Your task to perform on an android device: Clear the shopping cart on costco.com. Add "bose quietcomfort 35" to the cart on costco.com, then select checkout. Image 0: 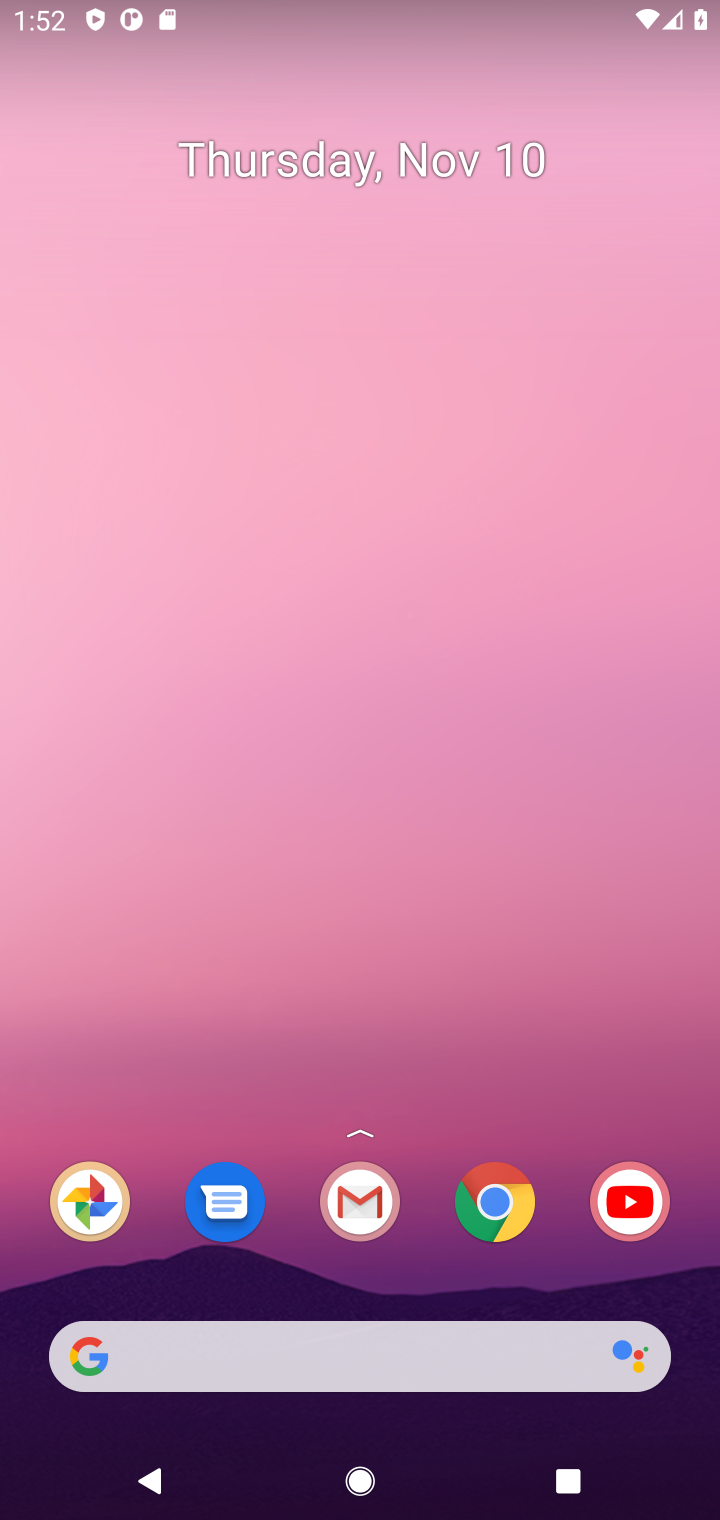
Step 0: click (486, 1196)
Your task to perform on an android device: Clear the shopping cart on costco.com. Add "bose quietcomfort 35" to the cart on costco.com, then select checkout. Image 1: 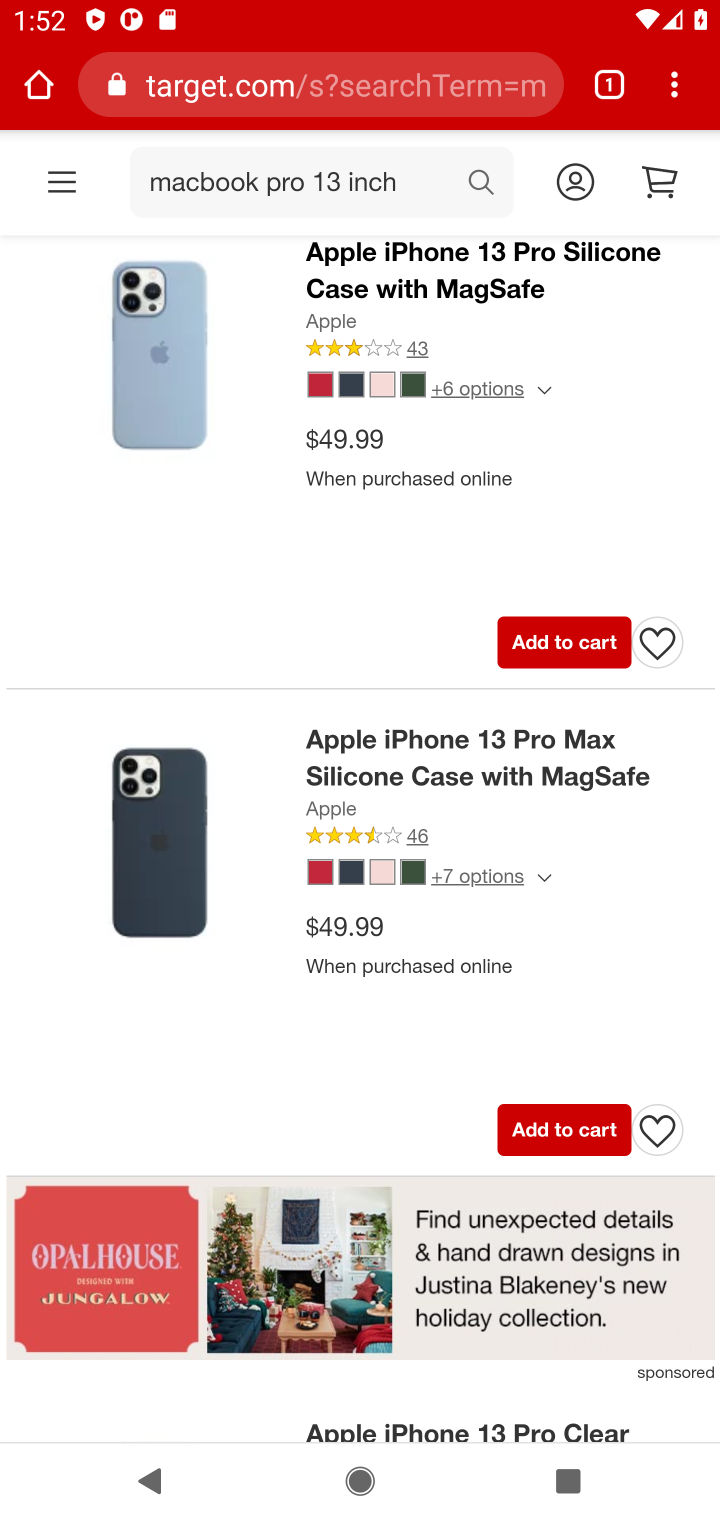
Step 1: click (476, 81)
Your task to perform on an android device: Clear the shopping cart on costco.com. Add "bose quietcomfort 35" to the cart on costco.com, then select checkout. Image 2: 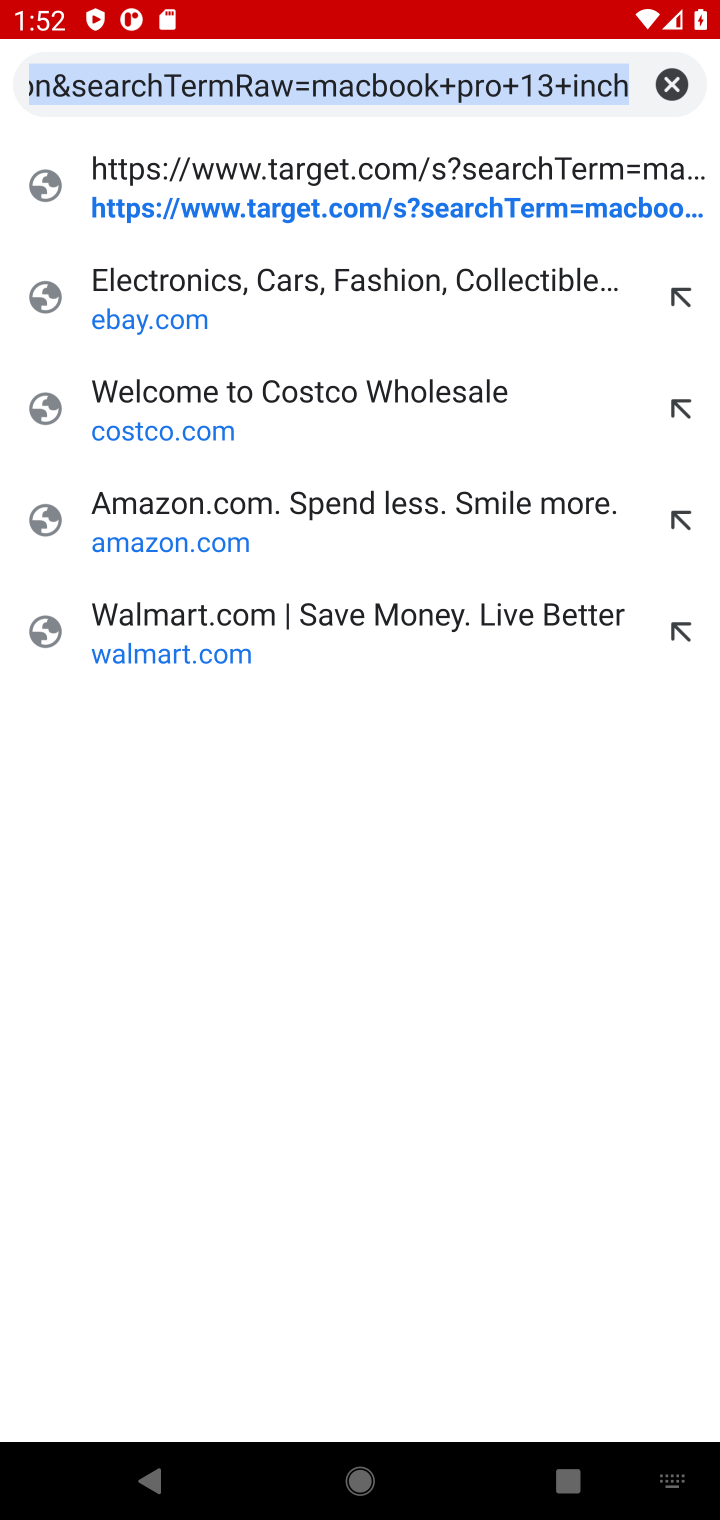
Step 2: click (658, 92)
Your task to perform on an android device: Clear the shopping cart on costco.com. Add "bose quietcomfort 35" to the cart on costco.com, then select checkout. Image 3: 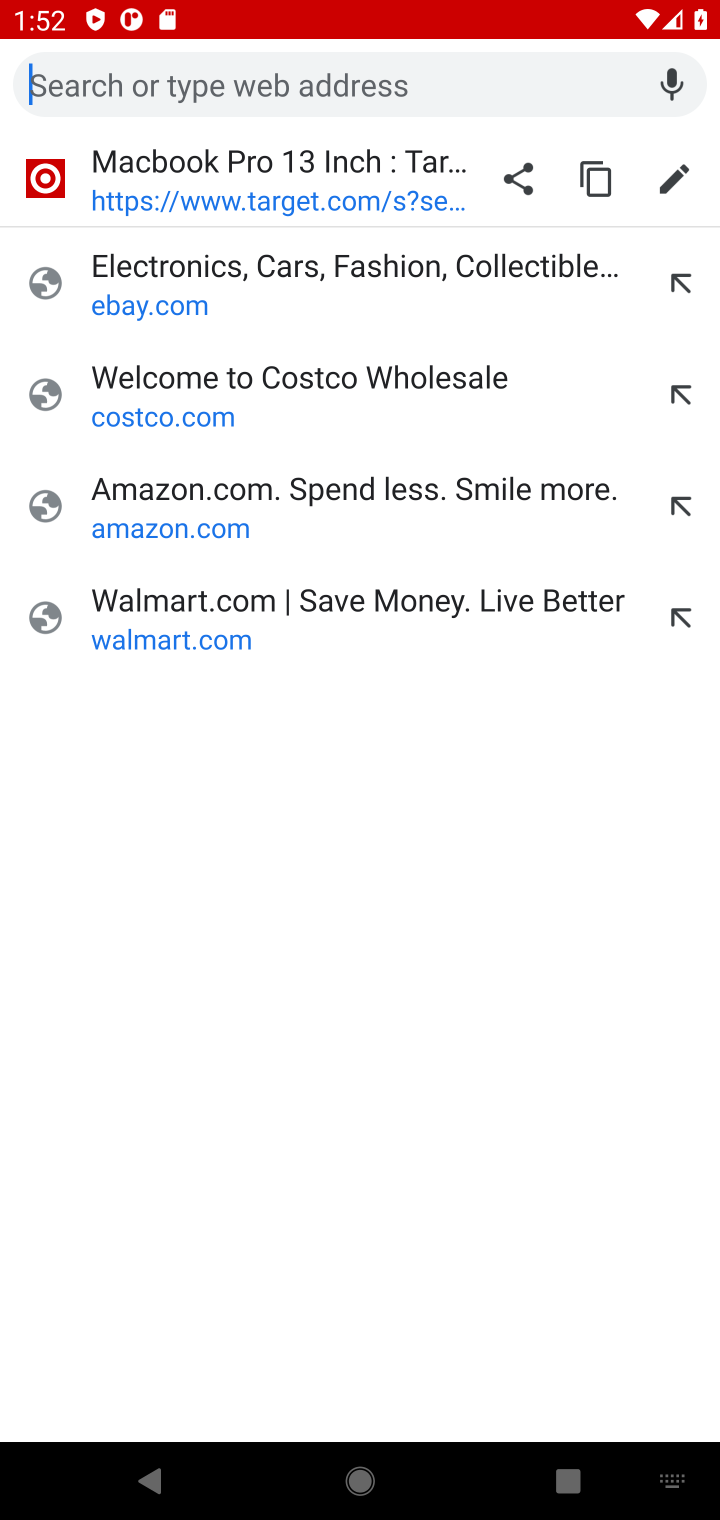
Step 3: type "costco.com"
Your task to perform on an android device: Clear the shopping cart on costco.com. Add "bose quietcomfort 35" to the cart on costco.com, then select checkout. Image 4: 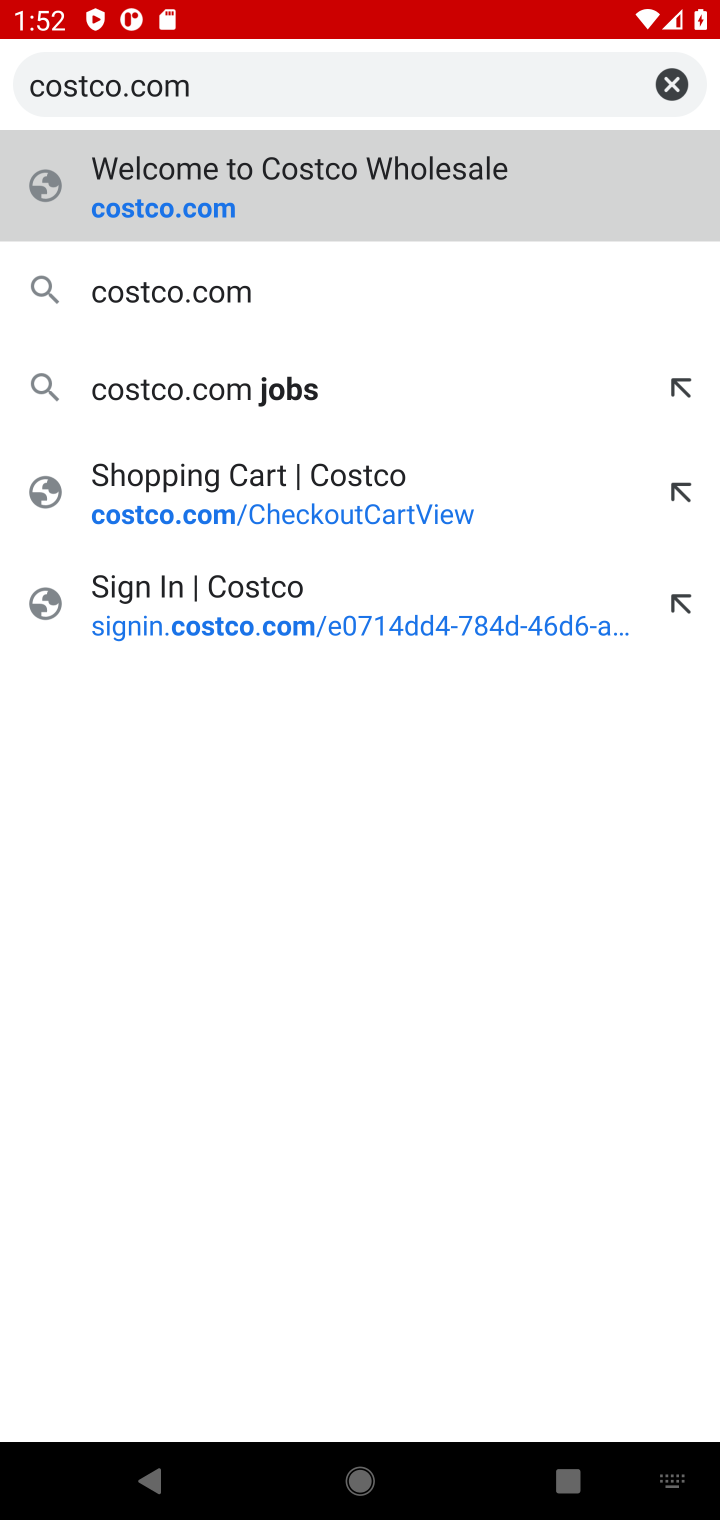
Step 4: click (198, 288)
Your task to perform on an android device: Clear the shopping cart on costco.com. Add "bose quietcomfort 35" to the cart on costco.com, then select checkout. Image 5: 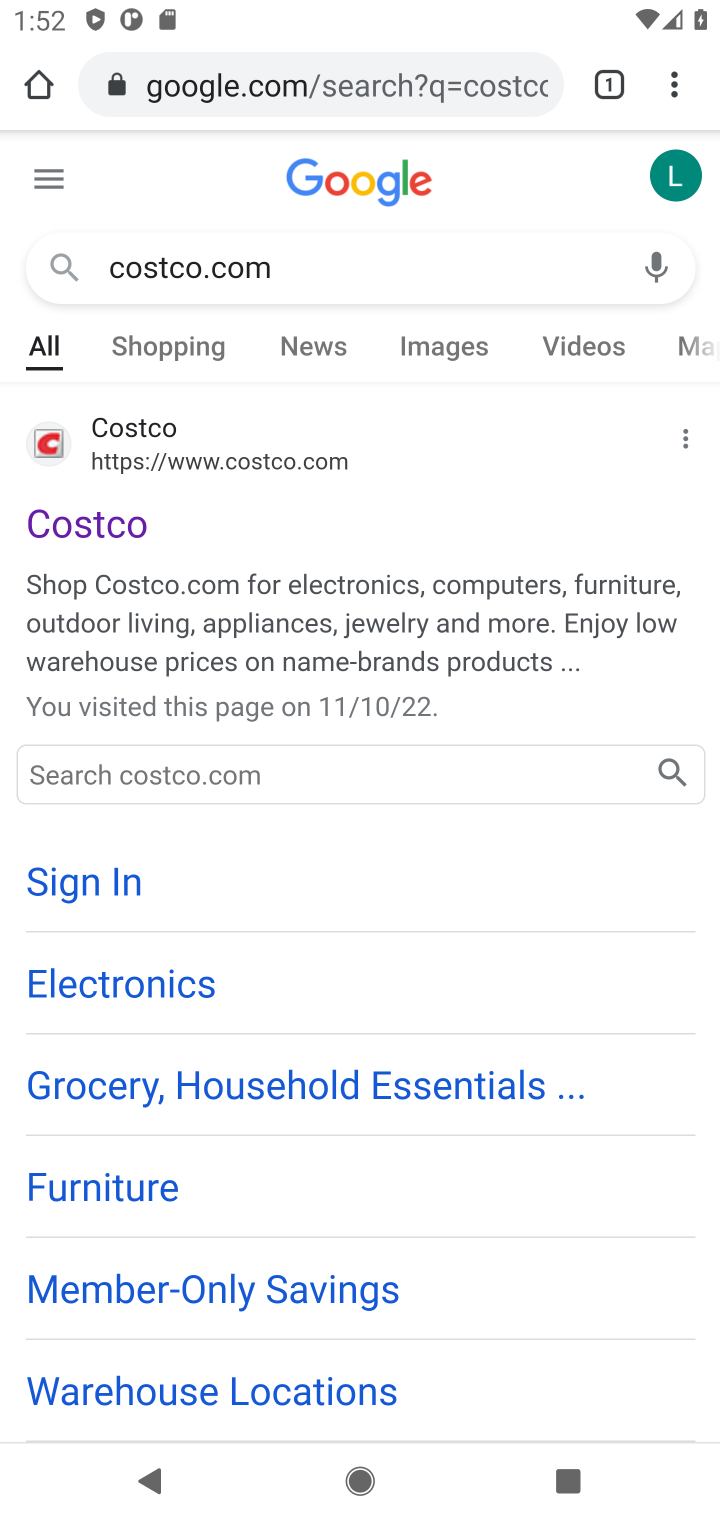
Step 5: click (220, 445)
Your task to perform on an android device: Clear the shopping cart on costco.com. Add "bose quietcomfort 35" to the cart on costco.com, then select checkout. Image 6: 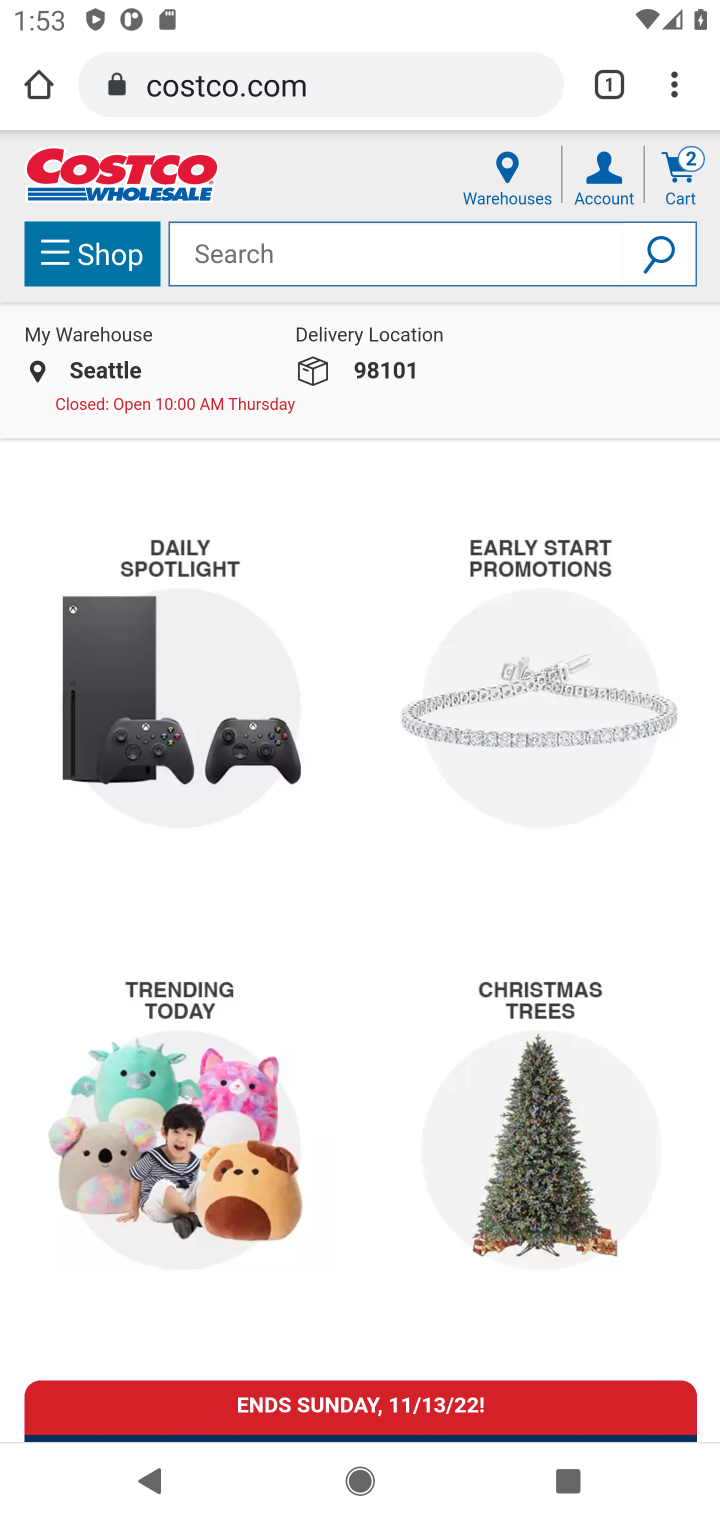
Step 6: click (670, 189)
Your task to perform on an android device: Clear the shopping cart on costco.com. Add "bose quietcomfort 35" to the cart on costco.com, then select checkout. Image 7: 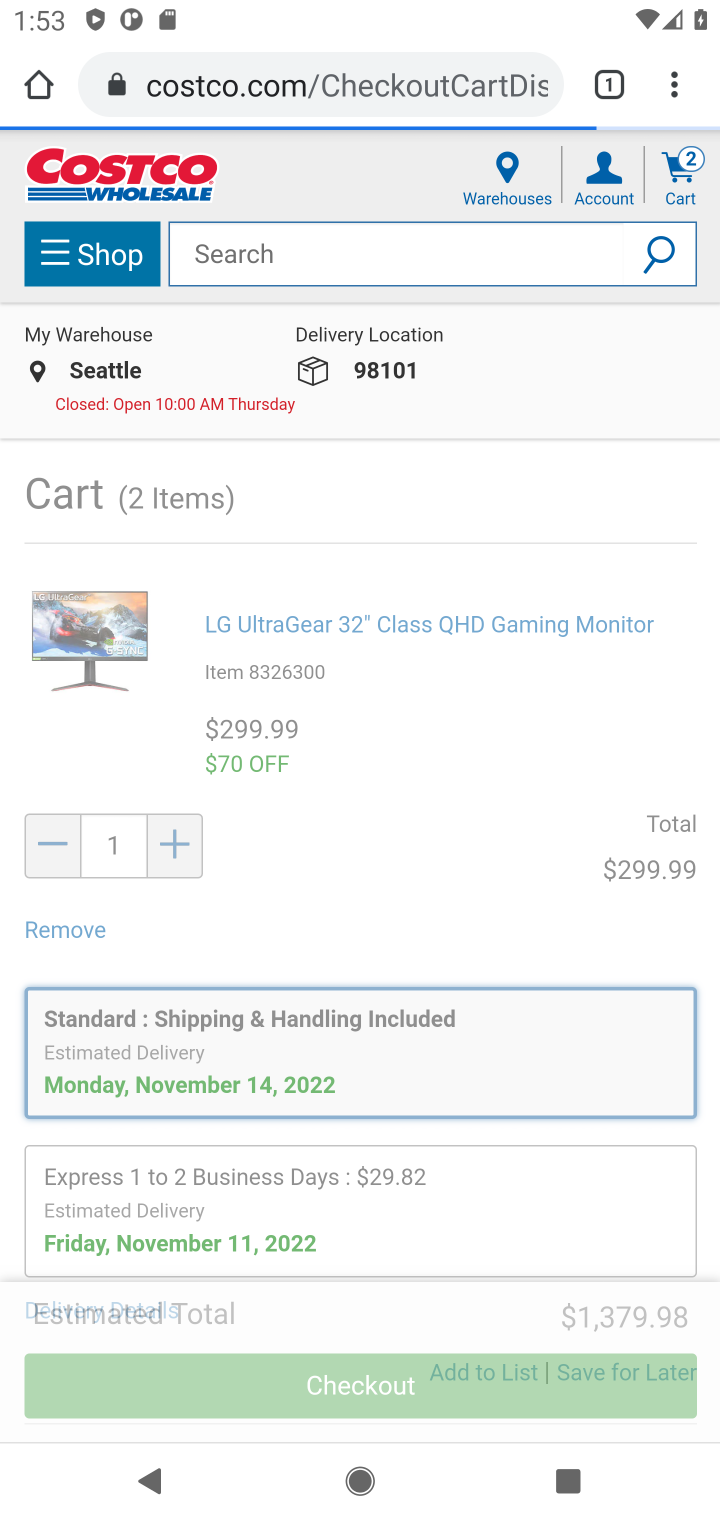
Step 7: click (49, 925)
Your task to perform on an android device: Clear the shopping cart on costco.com. Add "bose quietcomfort 35" to the cart on costco.com, then select checkout. Image 8: 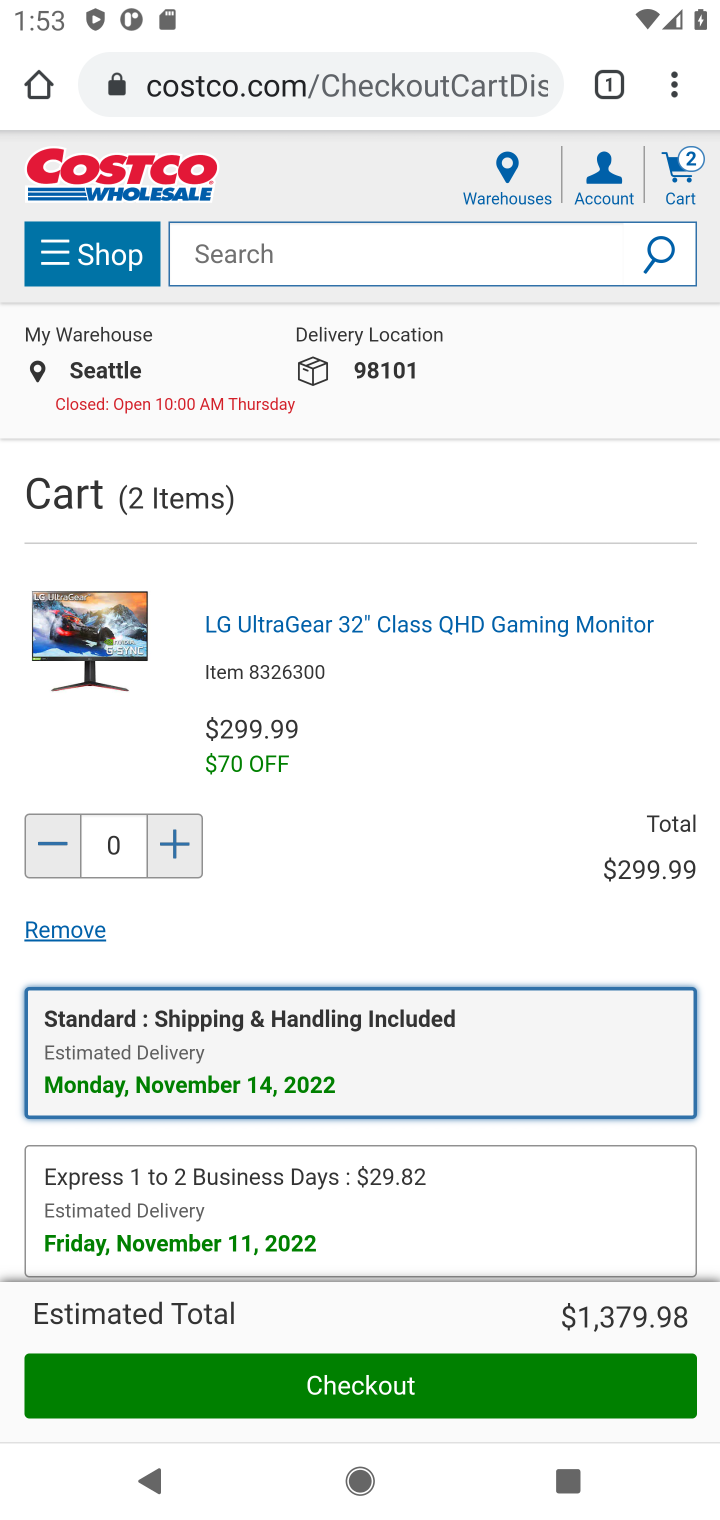
Step 8: drag from (415, 840) to (545, 411)
Your task to perform on an android device: Clear the shopping cart on costco.com. Add "bose quietcomfort 35" to the cart on costco.com, then select checkout. Image 9: 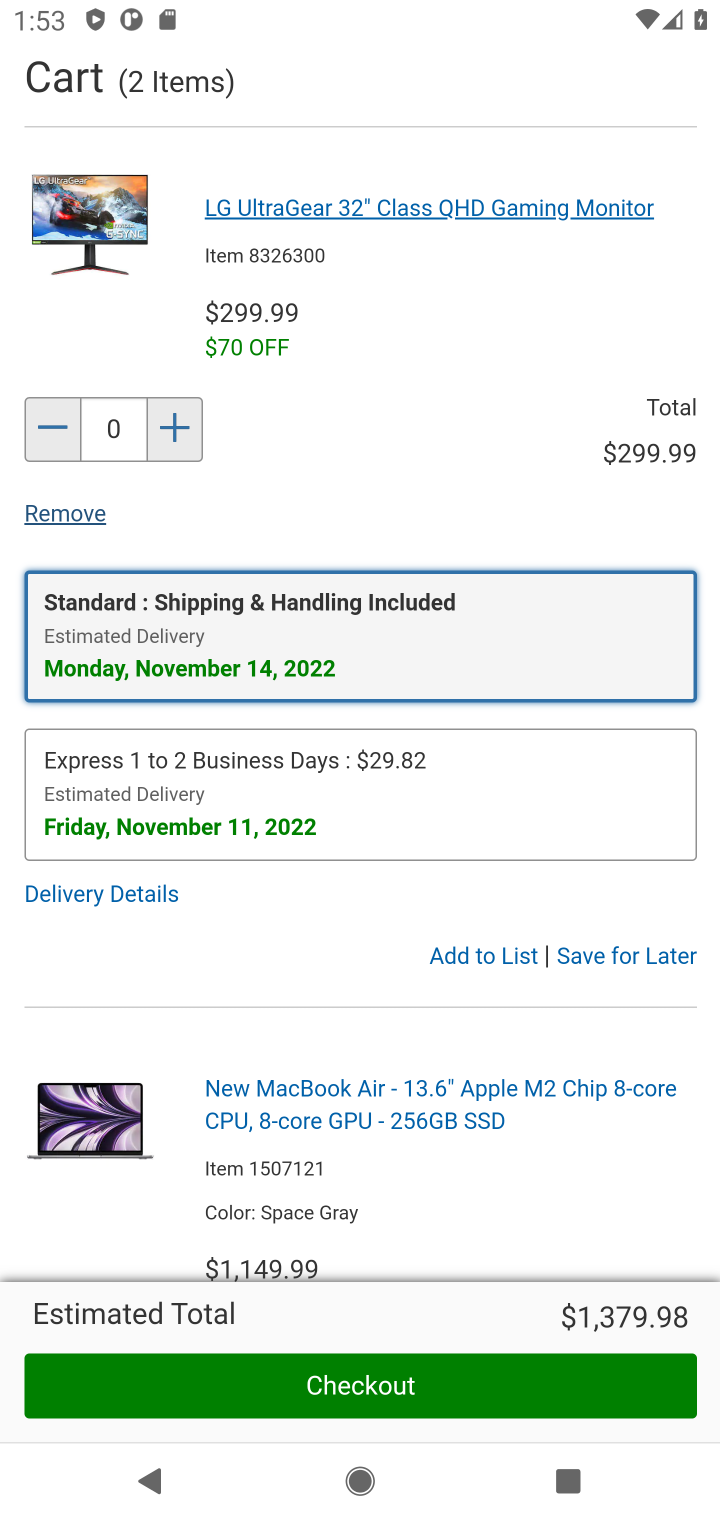
Step 9: drag from (281, 1011) to (380, 767)
Your task to perform on an android device: Clear the shopping cart on costco.com. Add "bose quietcomfort 35" to the cart on costco.com, then select checkout. Image 10: 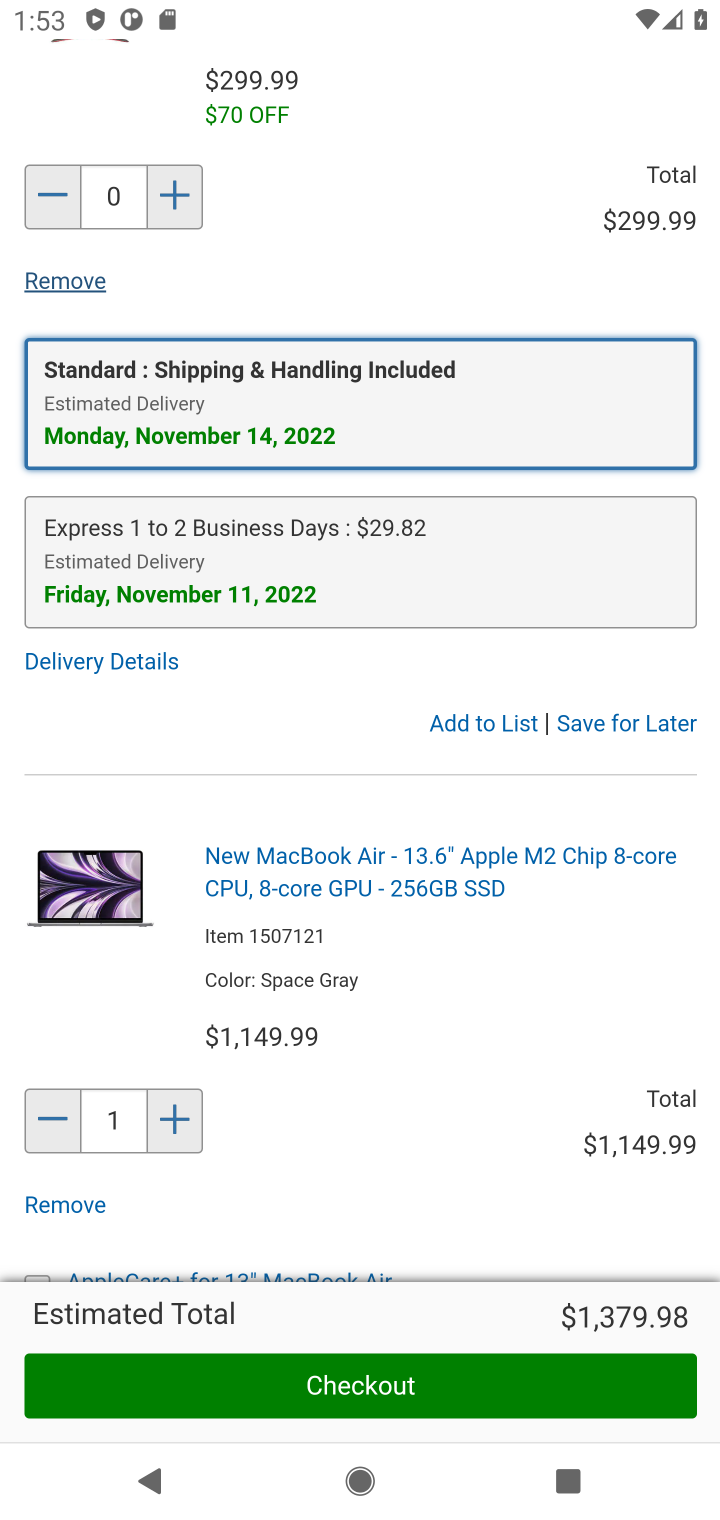
Step 10: click (31, 1130)
Your task to perform on an android device: Clear the shopping cart on costco.com. Add "bose quietcomfort 35" to the cart on costco.com, then select checkout. Image 11: 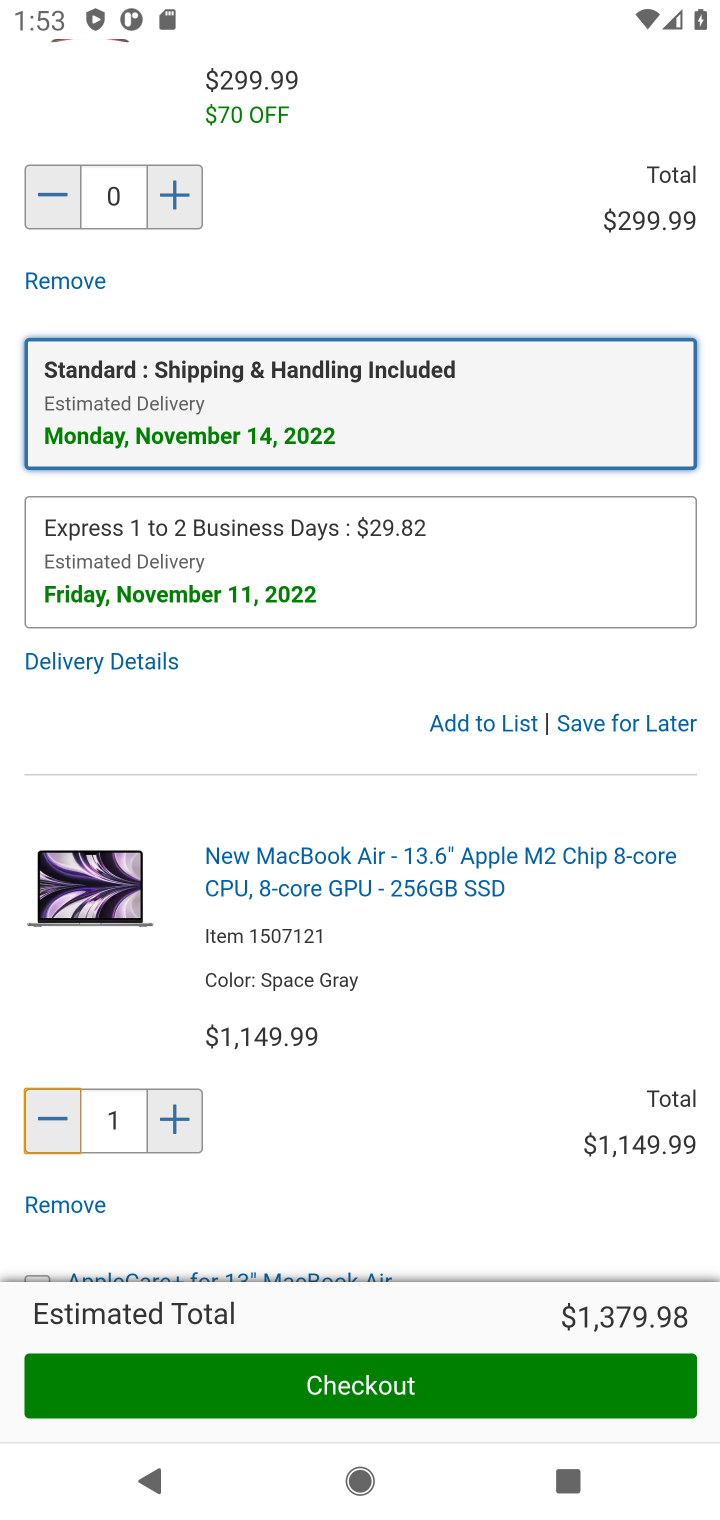
Step 11: drag from (585, 1070) to (707, 608)
Your task to perform on an android device: Clear the shopping cart on costco.com. Add "bose quietcomfort 35" to the cart on costco.com, then select checkout. Image 12: 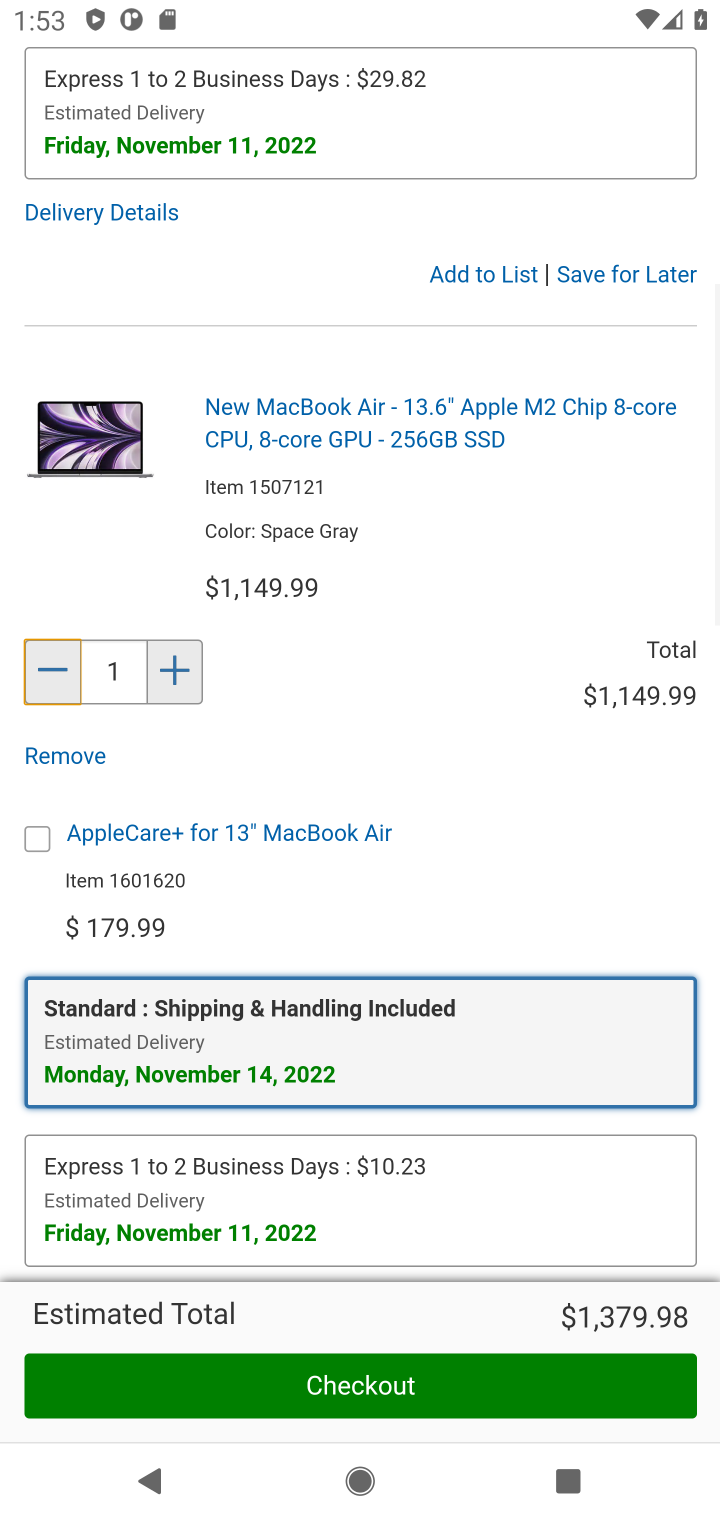
Step 12: click (62, 694)
Your task to perform on an android device: Clear the shopping cart on costco.com. Add "bose quietcomfort 35" to the cart on costco.com, then select checkout. Image 13: 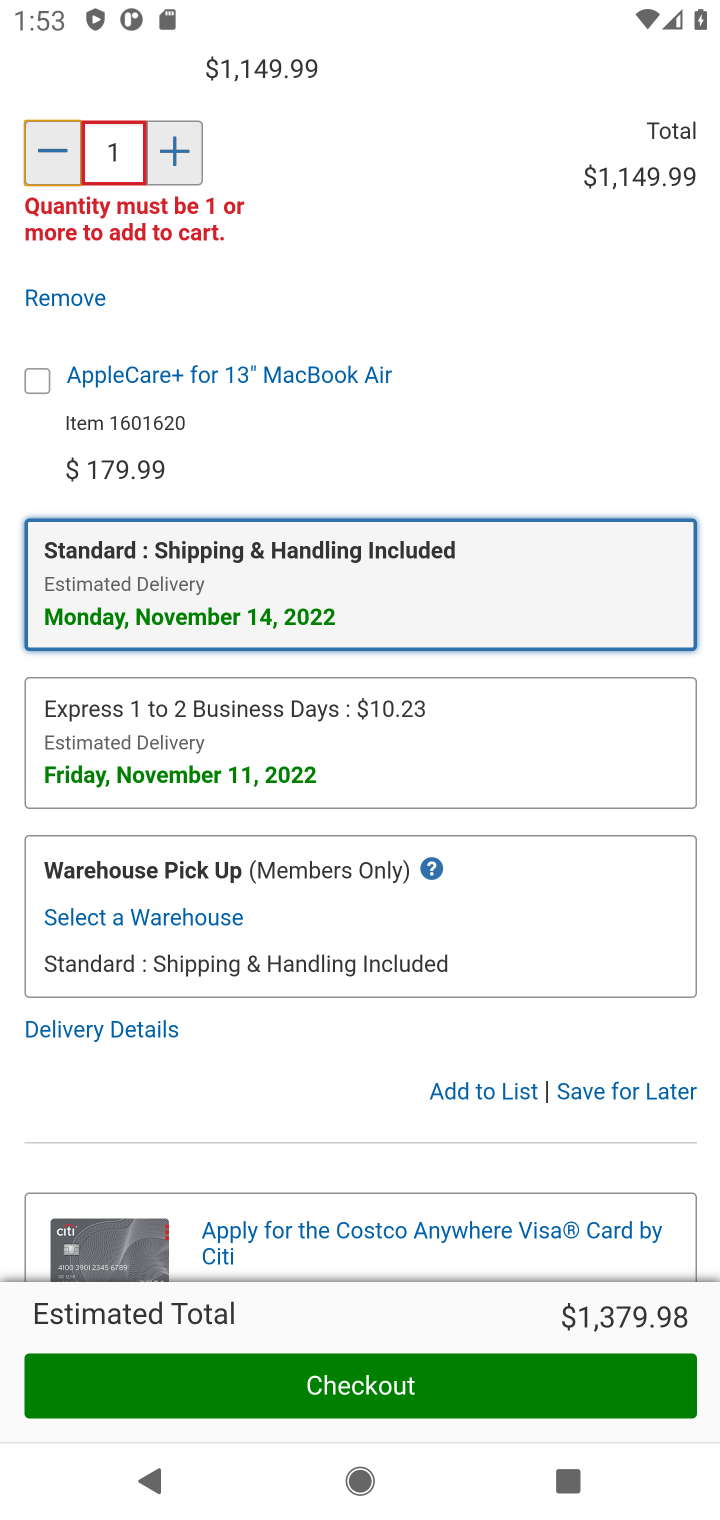
Step 13: click (57, 154)
Your task to perform on an android device: Clear the shopping cart on costco.com. Add "bose quietcomfort 35" to the cart on costco.com, then select checkout. Image 14: 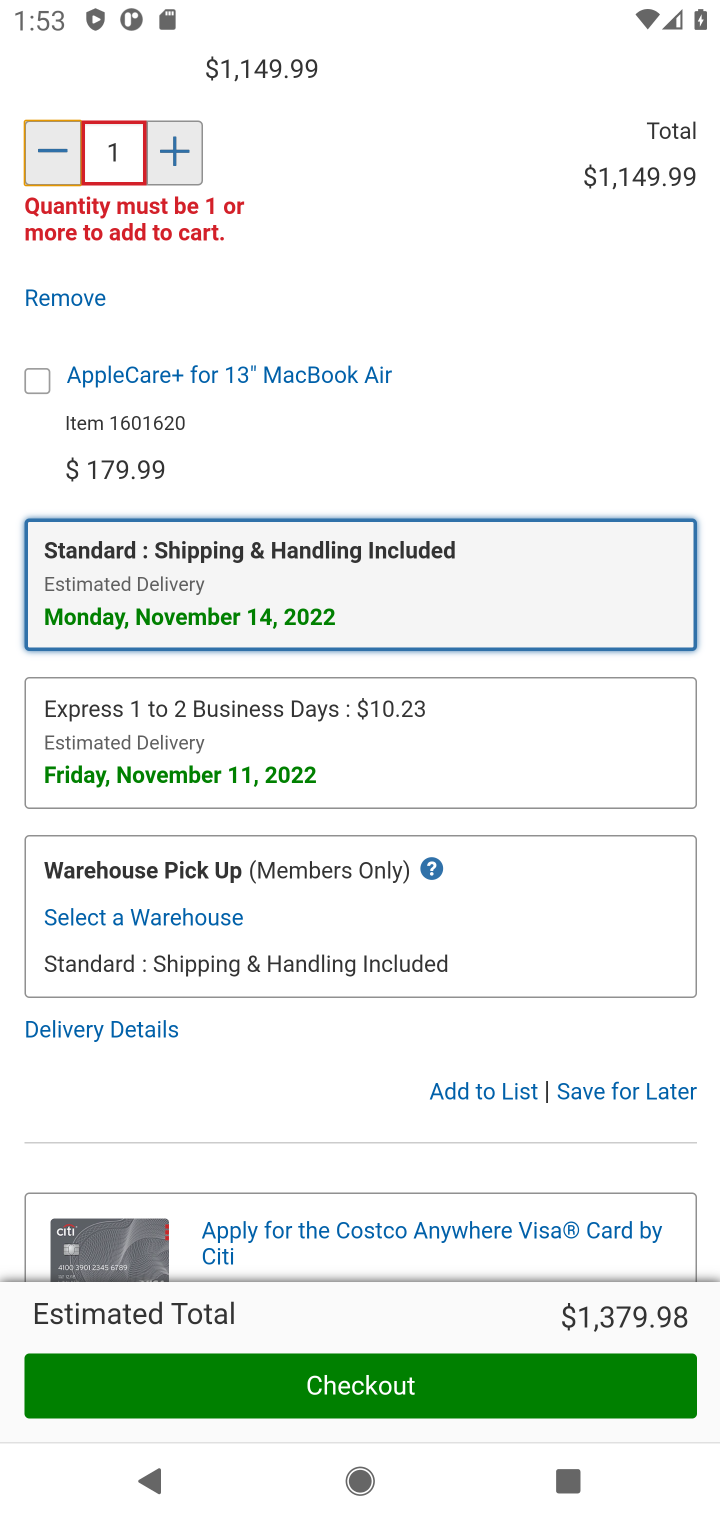
Step 14: click (62, 286)
Your task to perform on an android device: Clear the shopping cart on costco.com. Add "bose quietcomfort 35" to the cart on costco.com, then select checkout. Image 15: 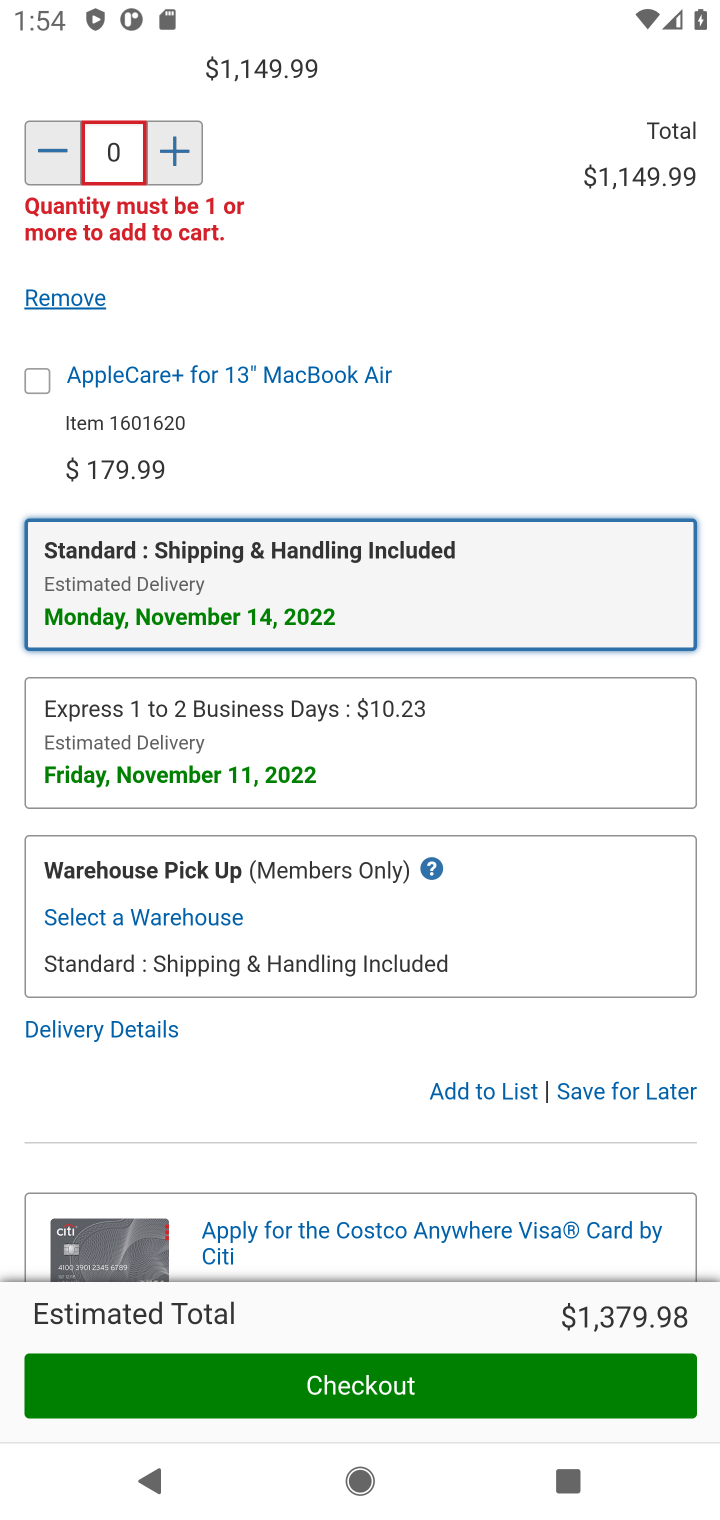
Step 15: drag from (550, 454) to (513, 1516)
Your task to perform on an android device: Clear the shopping cart on costco.com. Add "bose quietcomfort 35" to the cart on costco.com, then select checkout. Image 16: 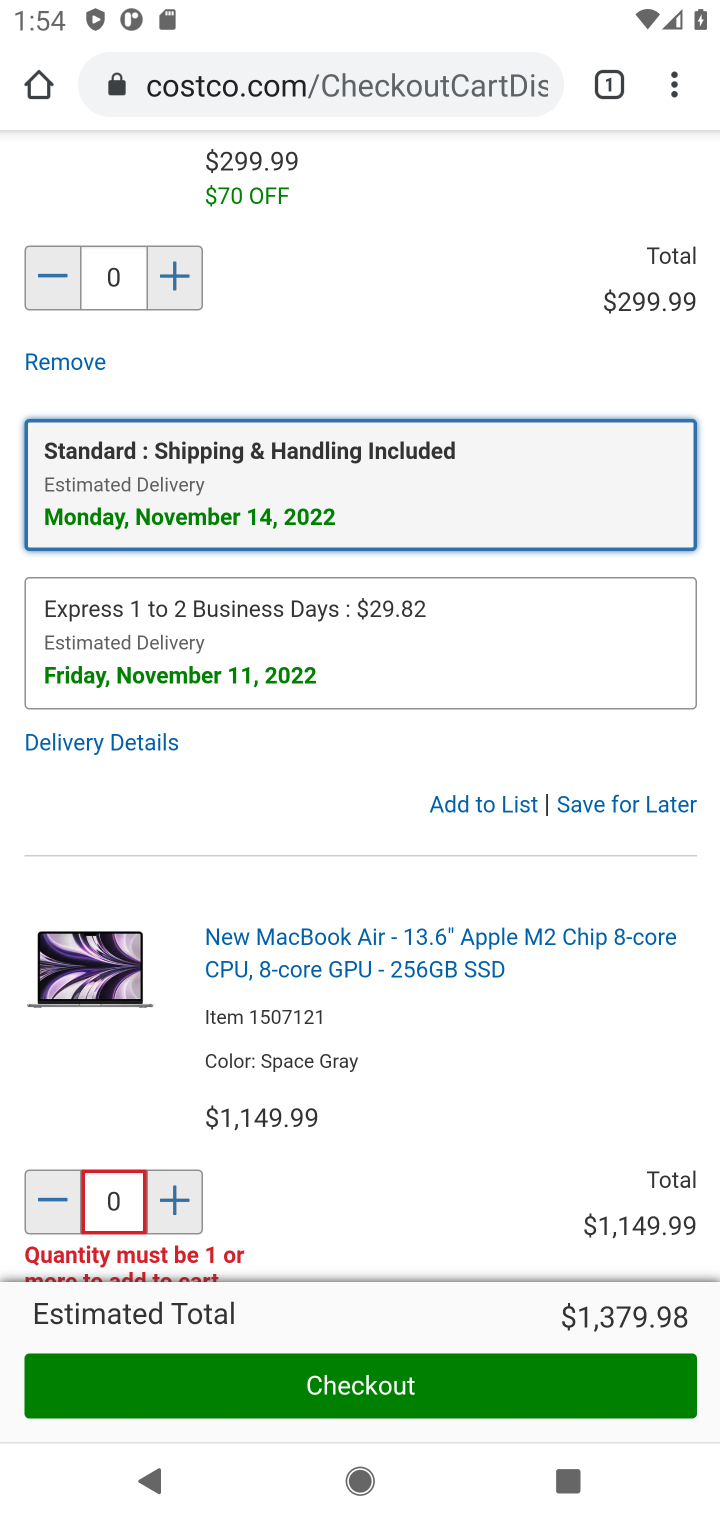
Step 16: drag from (364, 335) to (287, 1507)
Your task to perform on an android device: Clear the shopping cart on costco.com. Add "bose quietcomfort 35" to the cart on costco.com, then select checkout. Image 17: 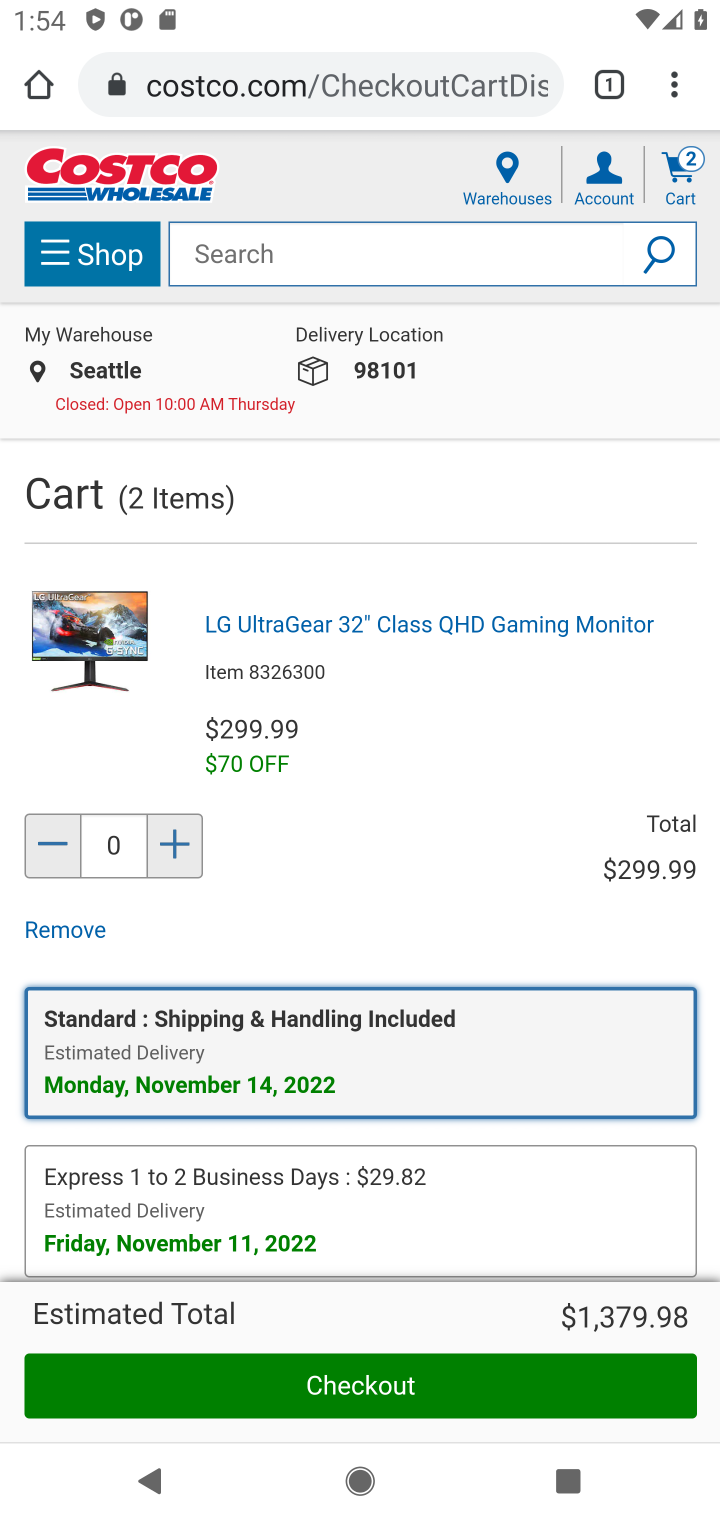
Step 17: click (641, 232)
Your task to perform on an android device: Clear the shopping cart on costco.com. Add "bose quietcomfort 35" to the cart on costco.com, then select checkout. Image 18: 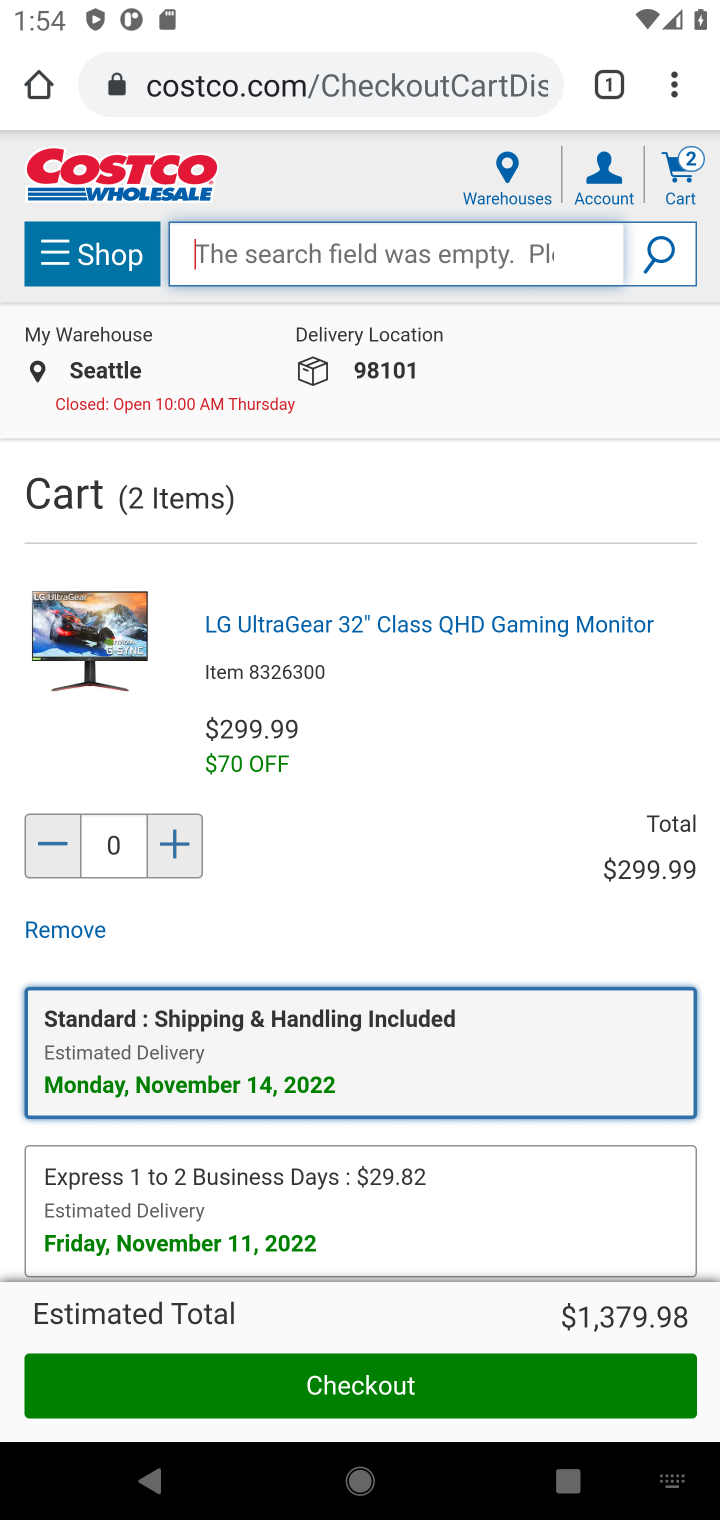
Step 18: type "bose quietcomfort 35"
Your task to perform on an android device: Clear the shopping cart on costco.com. Add "bose quietcomfort 35" to the cart on costco.com, then select checkout. Image 19: 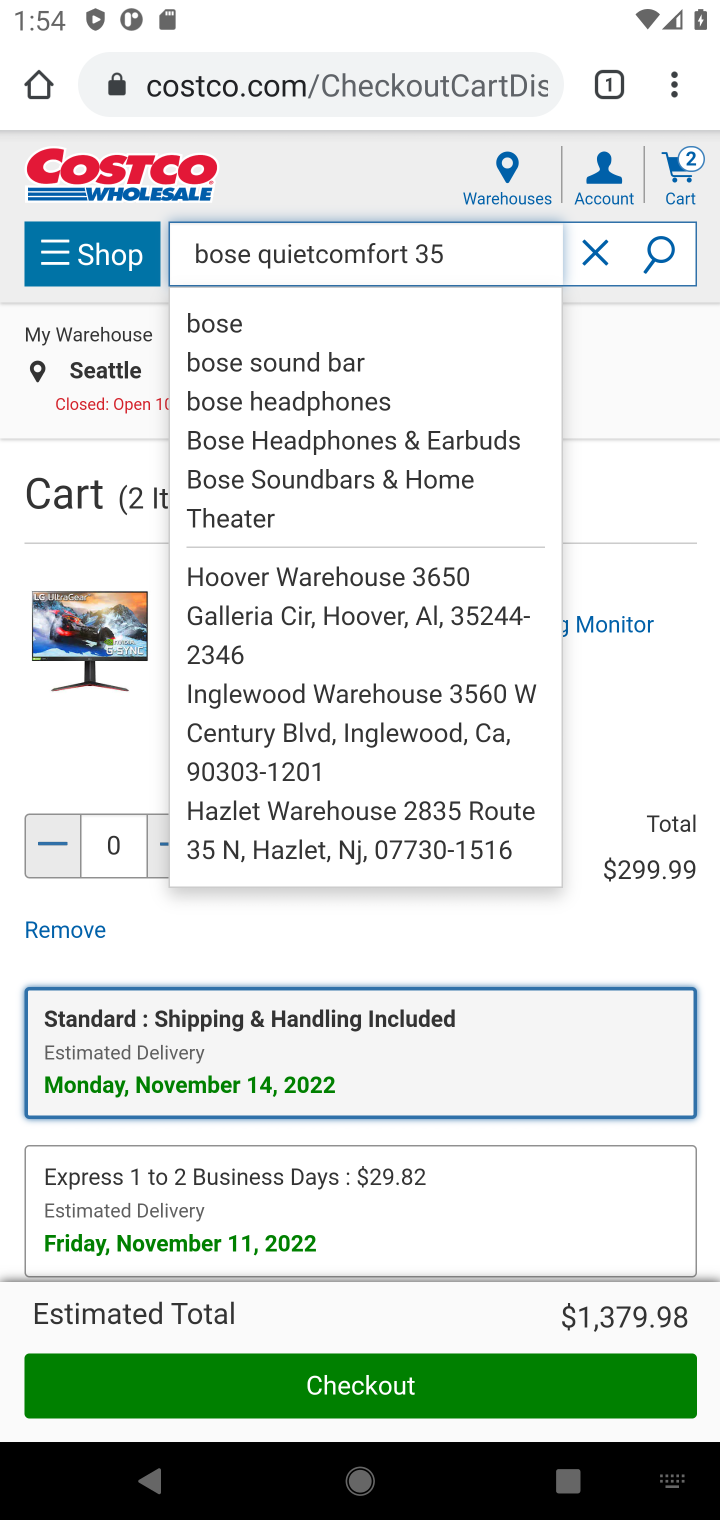
Step 19: click (690, 373)
Your task to perform on an android device: Clear the shopping cart on costco.com. Add "bose quietcomfort 35" to the cart on costco.com, then select checkout. Image 20: 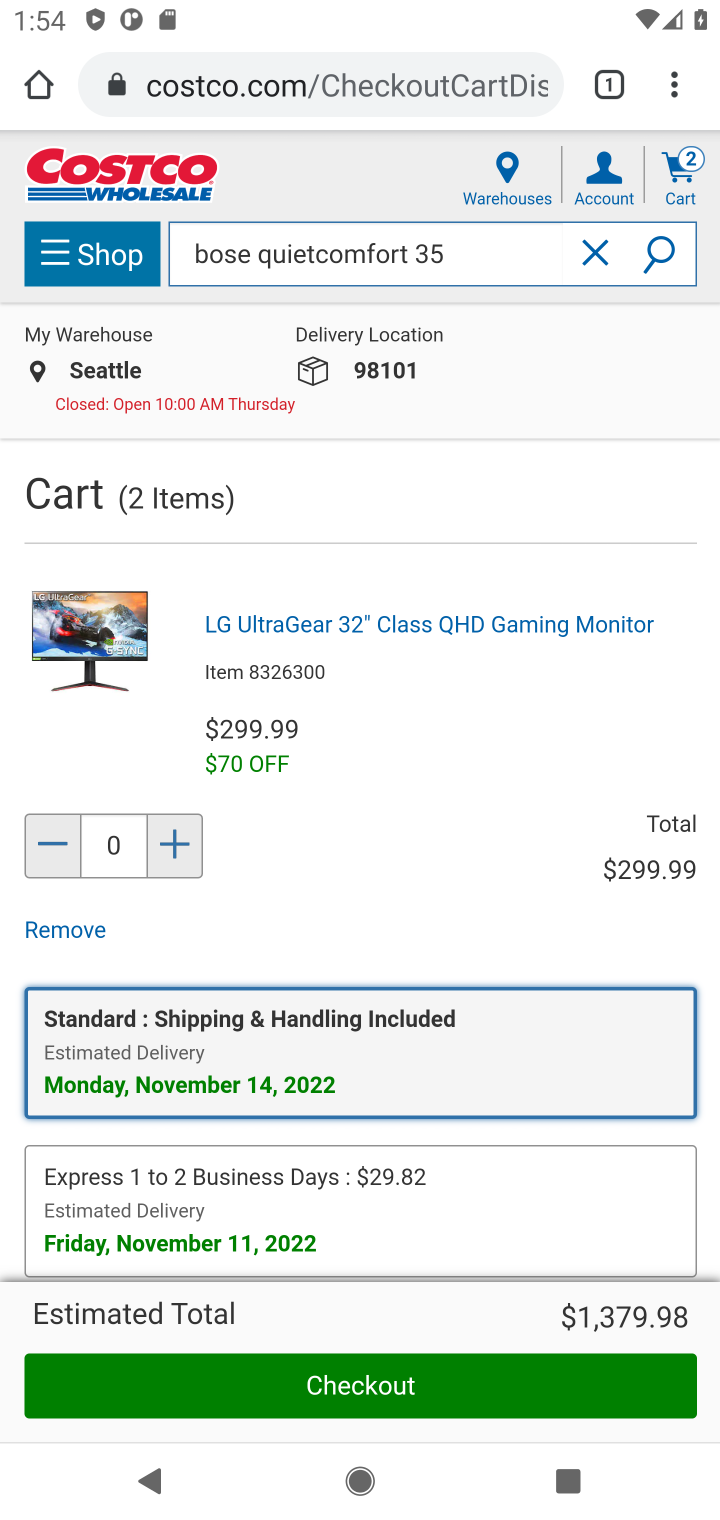
Step 20: click (636, 398)
Your task to perform on an android device: Clear the shopping cart on costco.com. Add "bose quietcomfort 35" to the cart on costco.com, then select checkout. Image 21: 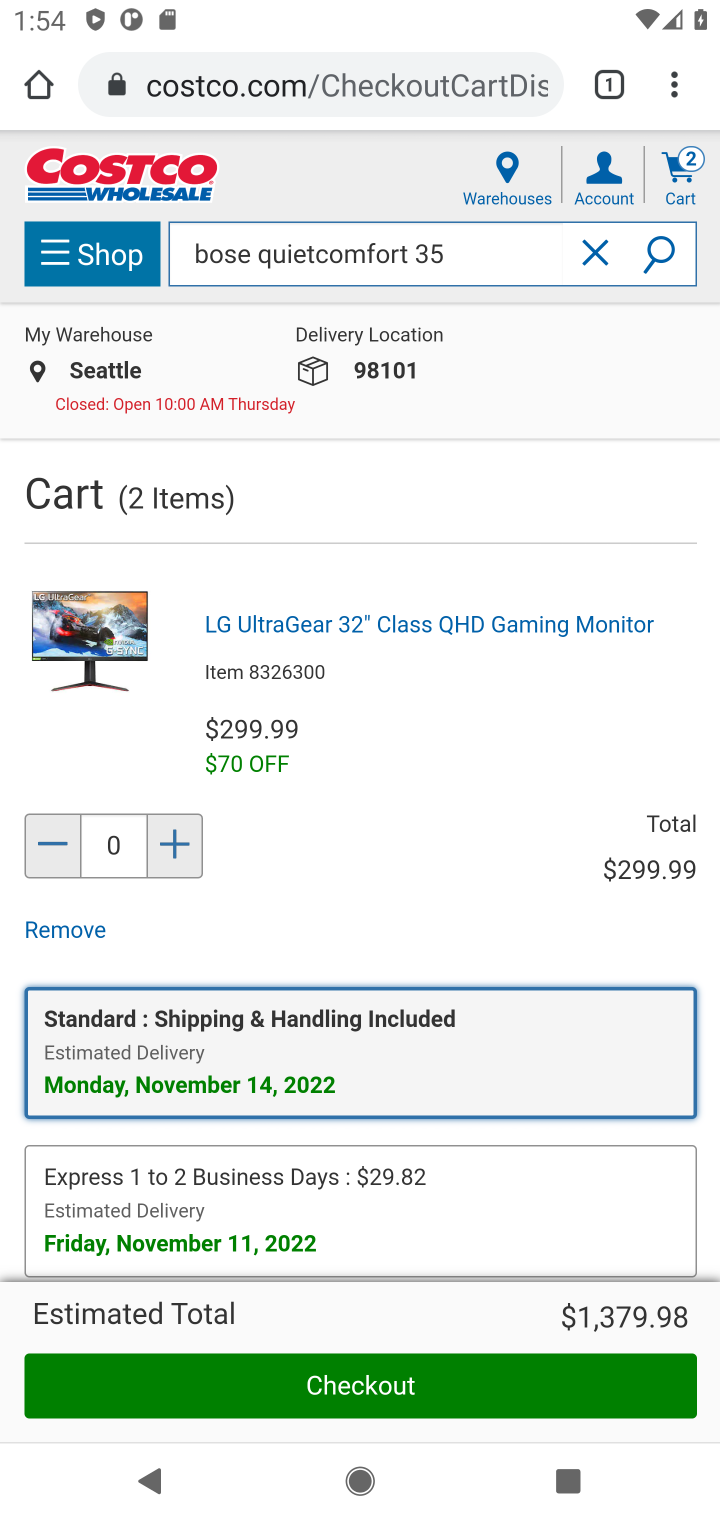
Step 21: task complete